Your task to perform on an android device: add a contact in the contacts app Image 0: 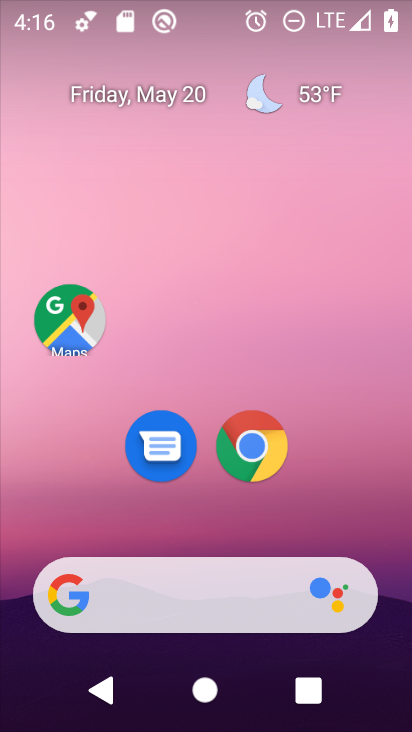
Step 0: drag from (342, 464) to (360, 129)
Your task to perform on an android device: add a contact in the contacts app Image 1: 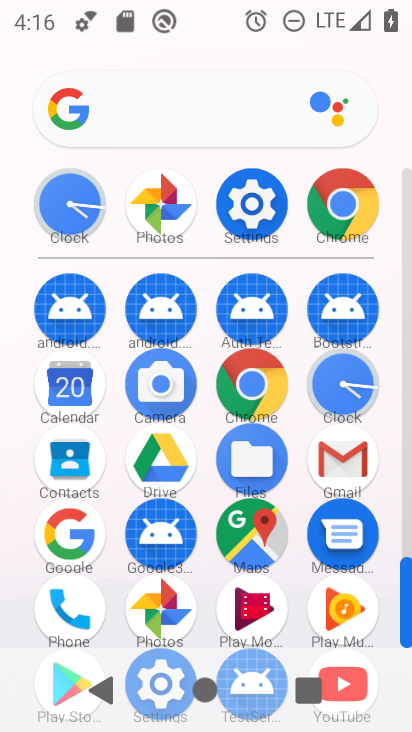
Step 1: click (63, 470)
Your task to perform on an android device: add a contact in the contacts app Image 2: 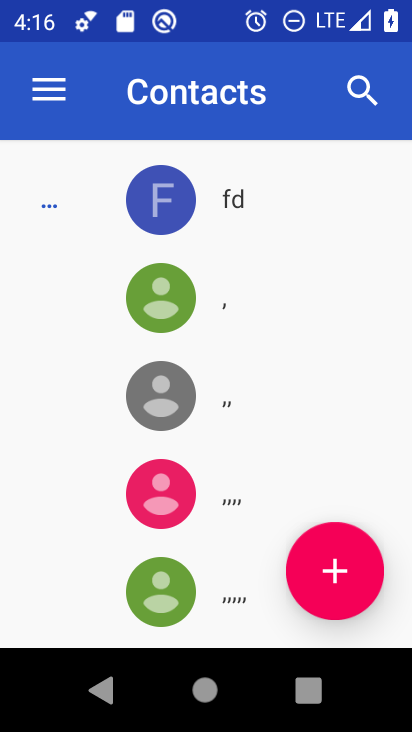
Step 2: click (326, 561)
Your task to perform on an android device: add a contact in the contacts app Image 3: 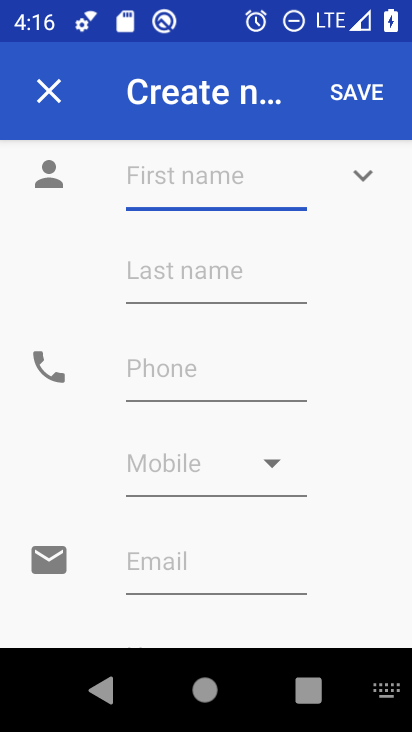
Step 3: type "tryrry"
Your task to perform on an android device: add a contact in the contacts app Image 4: 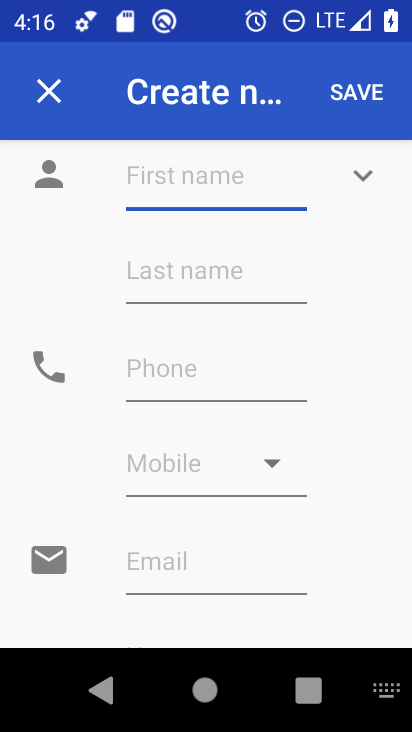
Step 4: click (192, 374)
Your task to perform on an android device: add a contact in the contacts app Image 5: 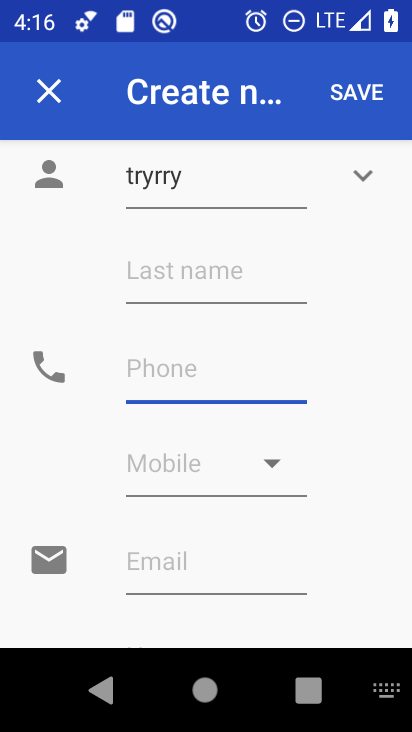
Step 5: type "44555555"
Your task to perform on an android device: add a contact in the contacts app Image 6: 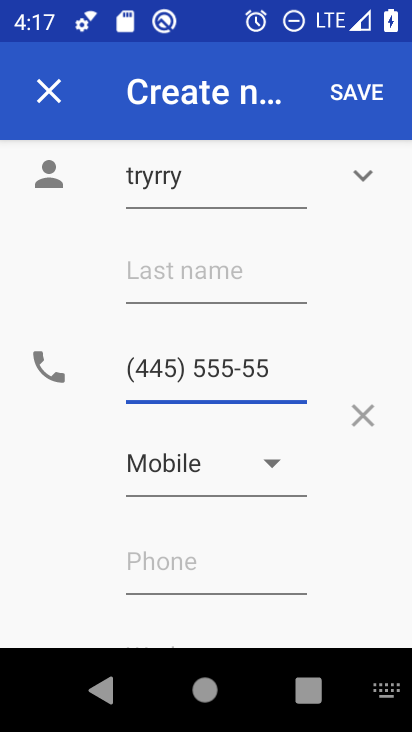
Step 6: click (350, 101)
Your task to perform on an android device: add a contact in the contacts app Image 7: 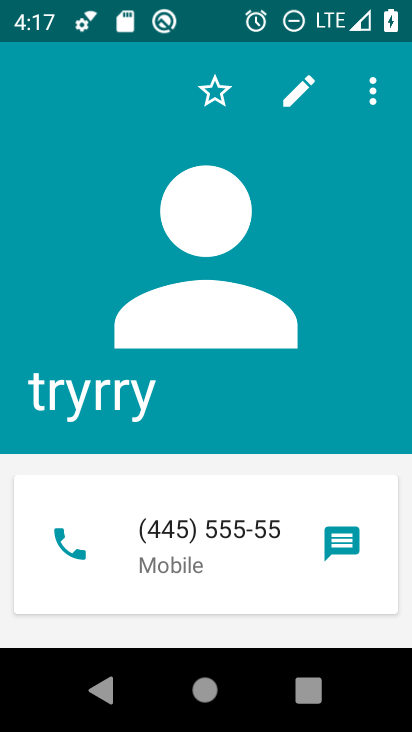
Step 7: task complete